Your task to perform on an android device: refresh tabs in the chrome app Image 0: 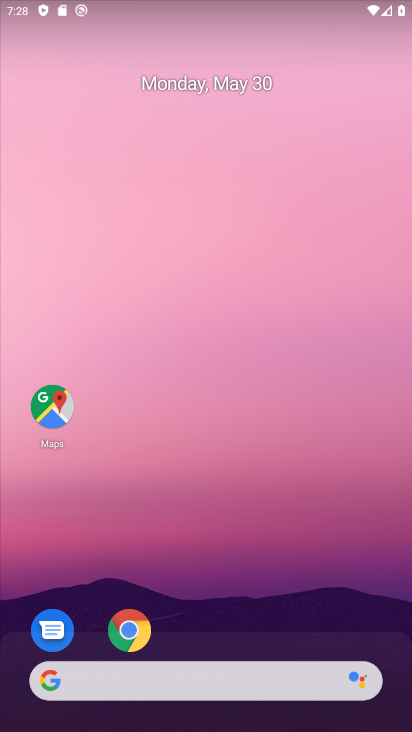
Step 0: click (133, 625)
Your task to perform on an android device: refresh tabs in the chrome app Image 1: 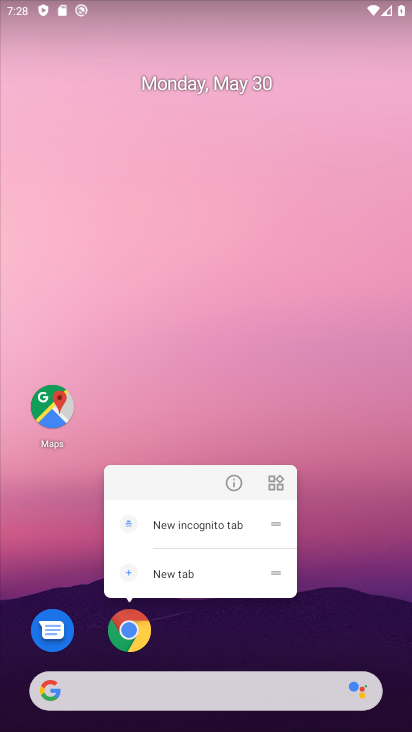
Step 1: click (137, 639)
Your task to perform on an android device: refresh tabs in the chrome app Image 2: 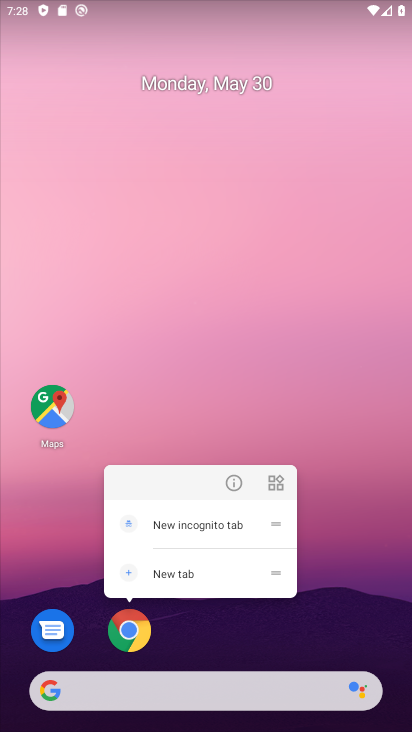
Step 2: click (127, 639)
Your task to perform on an android device: refresh tabs in the chrome app Image 3: 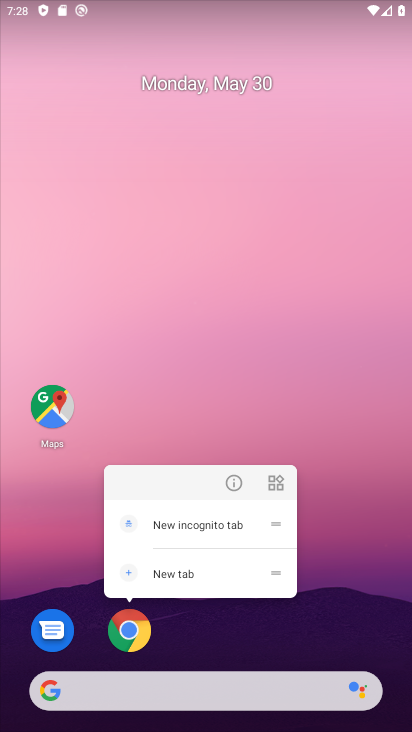
Step 3: click (130, 636)
Your task to perform on an android device: refresh tabs in the chrome app Image 4: 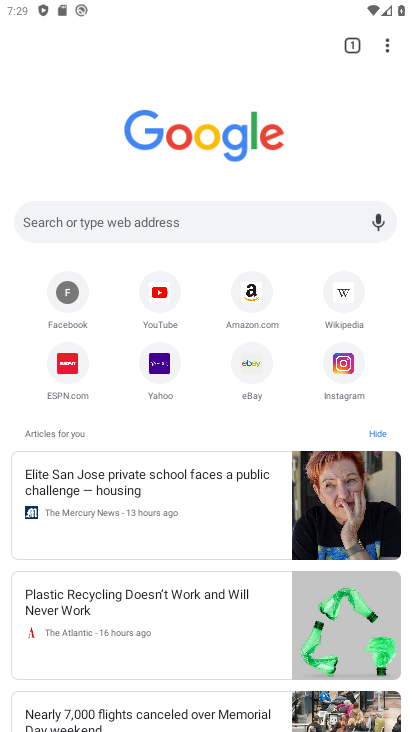
Step 4: click (384, 59)
Your task to perform on an android device: refresh tabs in the chrome app Image 5: 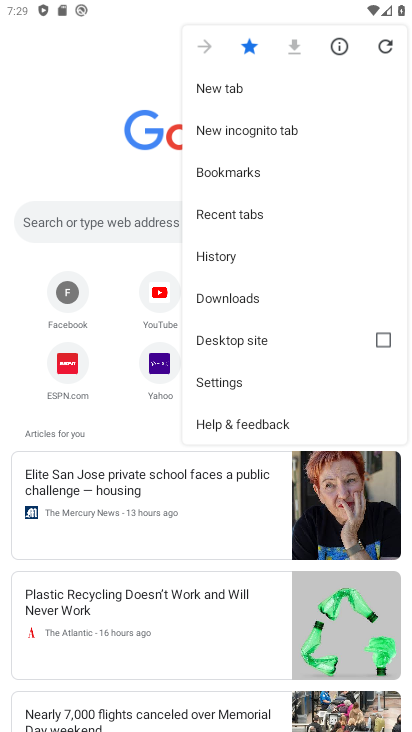
Step 5: click (378, 43)
Your task to perform on an android device: refresh tabs in the chrome app Image 6: 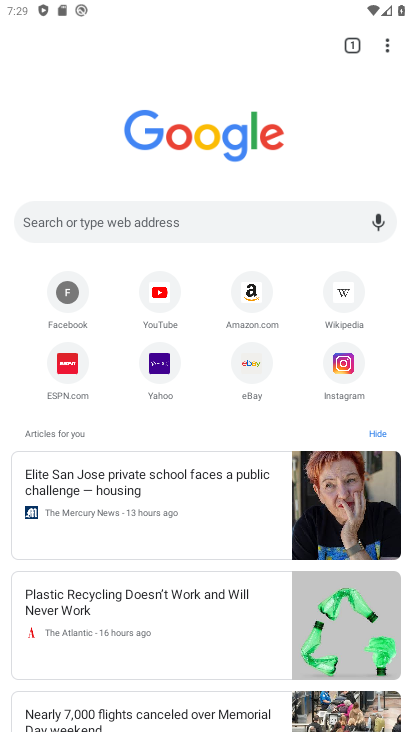
Step 6: task complete